Your task to perform on an android device: Search for pizza restaurants on Maps Image 0: 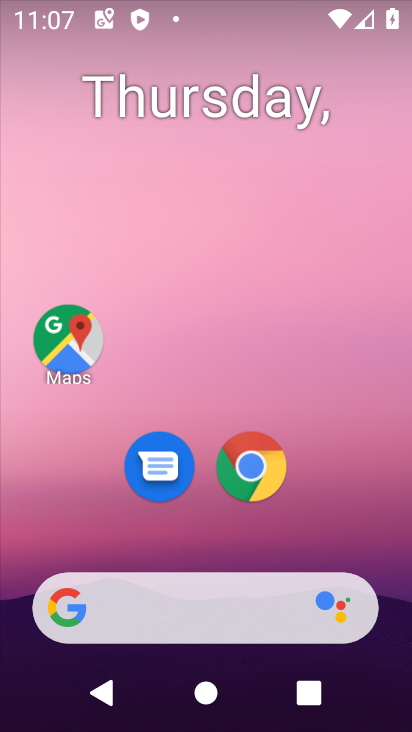
Step 0: drag from (400, 651) to (266, 45)
Your task to perform on an android device: Search for pizza restaurants on Maps Image 1: 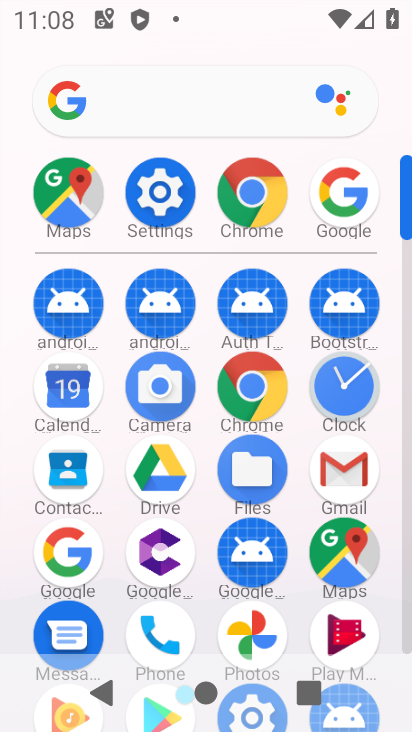
Step 1: click (333, 557)
Your task to perform on an android device: Search for pizza restaurants on Maps Image 2: 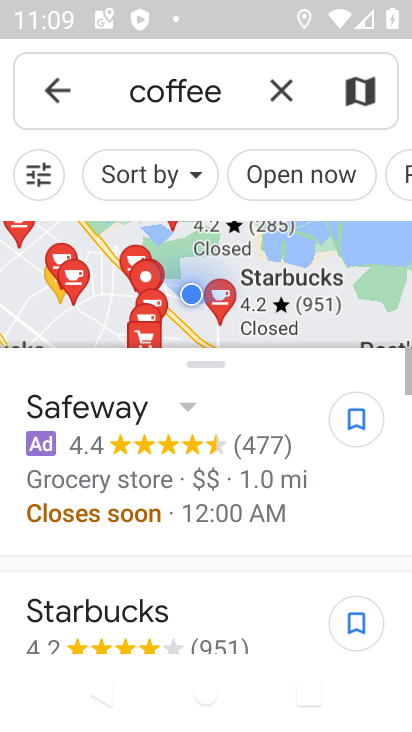
Step 2: click (278, 113)
Your task to perform on an android device: Search for pizza restaurants on Maps Image 3: 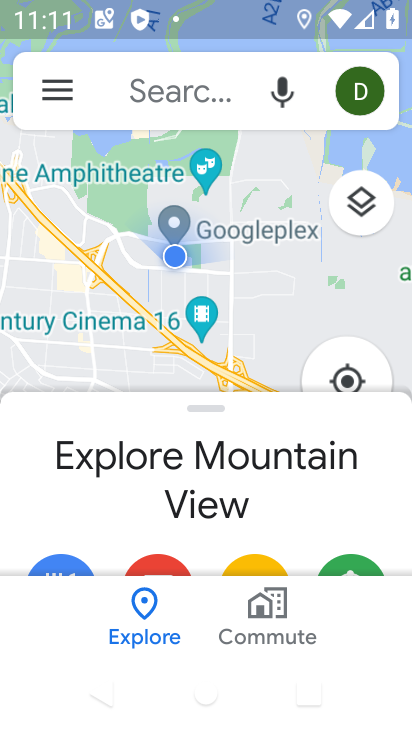
Step 3: click (143, 107)
Your task to perform on an android device: Search for pizza restaurants on Maps Image 4: 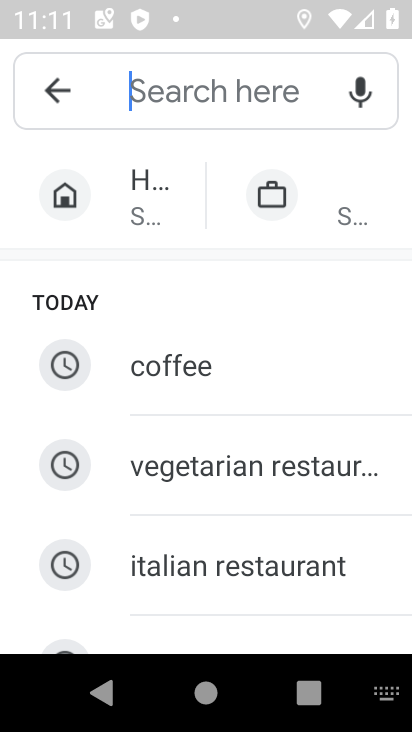
Step 4: drag from (183, 565) to (169, 137)
Your task to perform on an android device: Search for pizza restaurants on Maps Image 5: 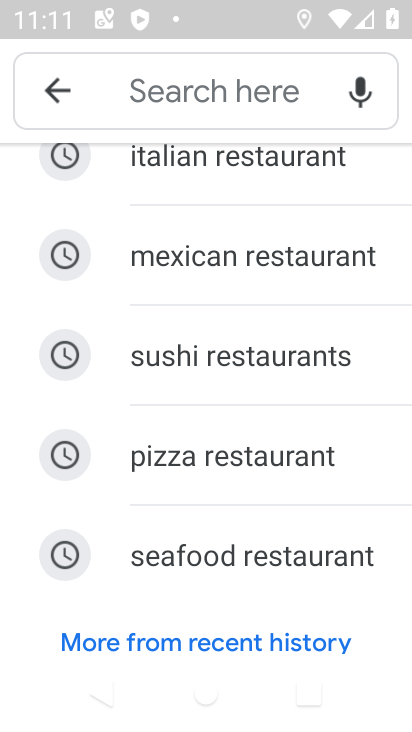
Step 5: click (164, 472)
Your task to perform on an android device: Search for pizza restaurants on Maps Image 6: 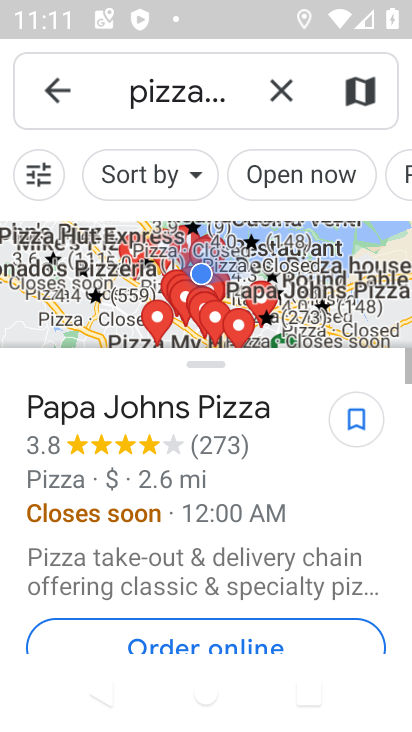
Step 6: task complete